Your task to perform on an android device: Go to Yahoo.com Image 0: 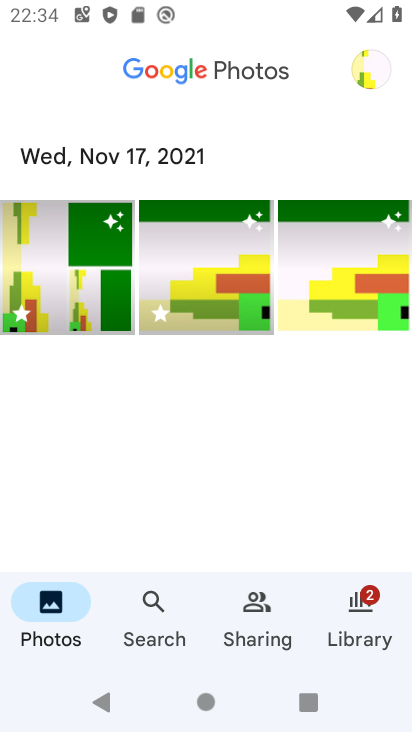
Step 0: press home button
Your task to perform on an android device: Go to Yahoo.com Image 1: 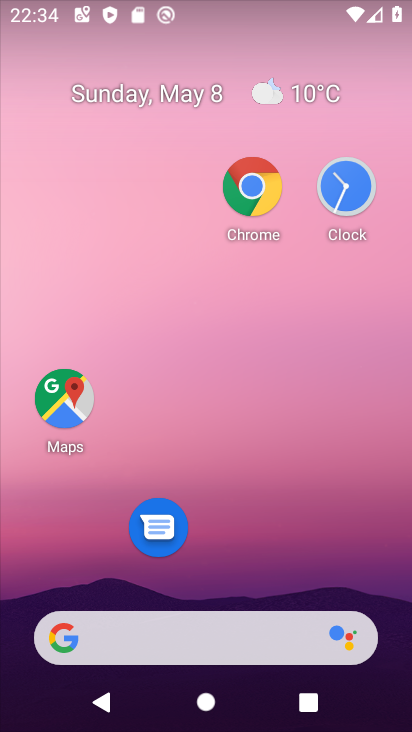
Step 1: click (266, 198)
Your task to perform on an android device: Go to Yahoo.com Image 2: 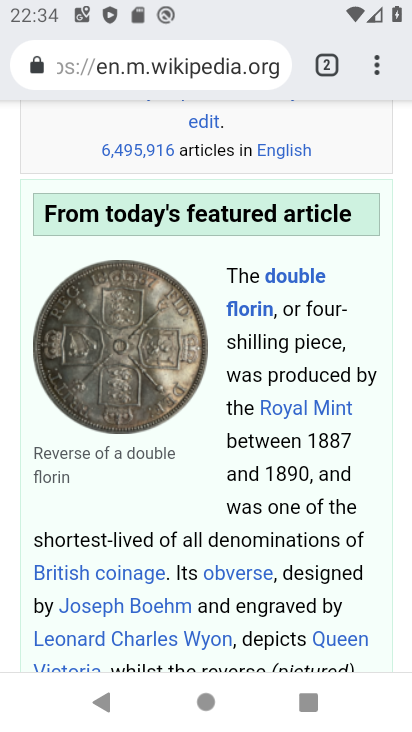
Step 2: click (322, 68)
Your task to perform on an android device: Go to Yahoo.com Image 3: 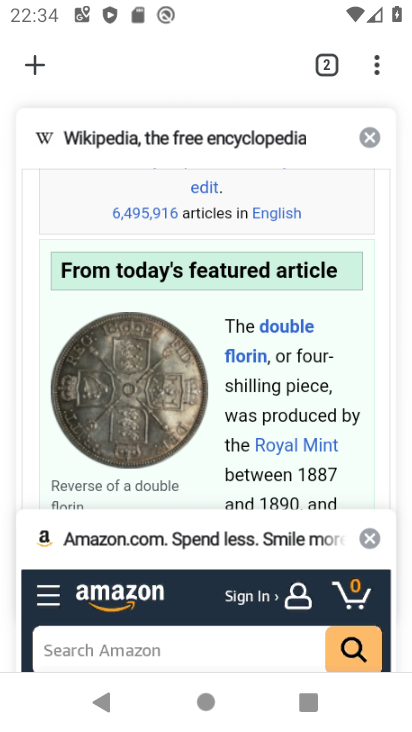
Step 3: click (39, 62)
Your task to perform on an android device: Go to Yahoo.com Image 4: 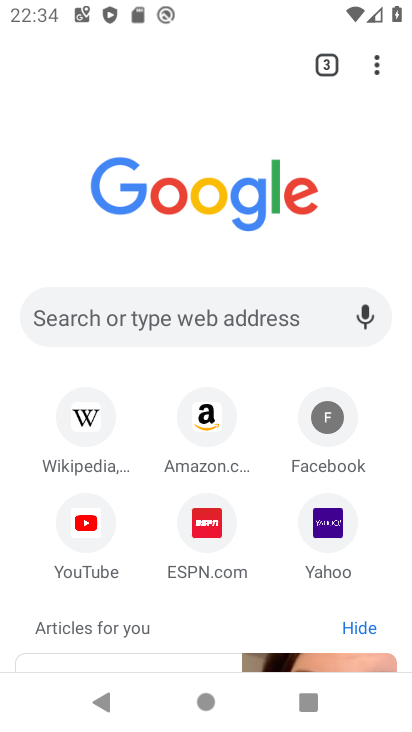
Step 4: click (326, 534)
Your task to perform on an android device: Go to Yahoo.com Image 5: 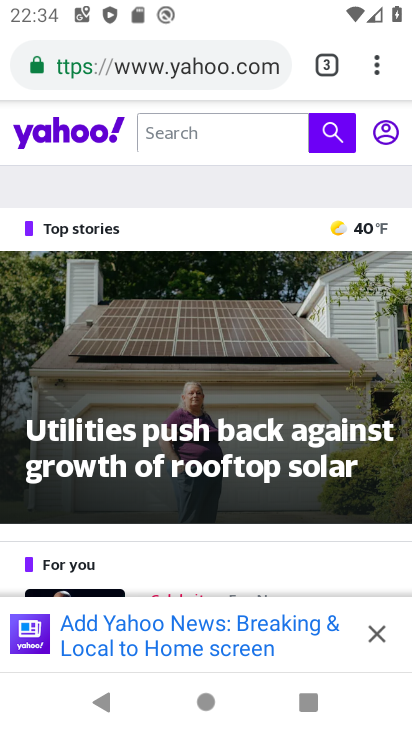
Step 5: task complete